Your task to perform on an android device: Open the phone app and click the voicemail tab. Image 0: 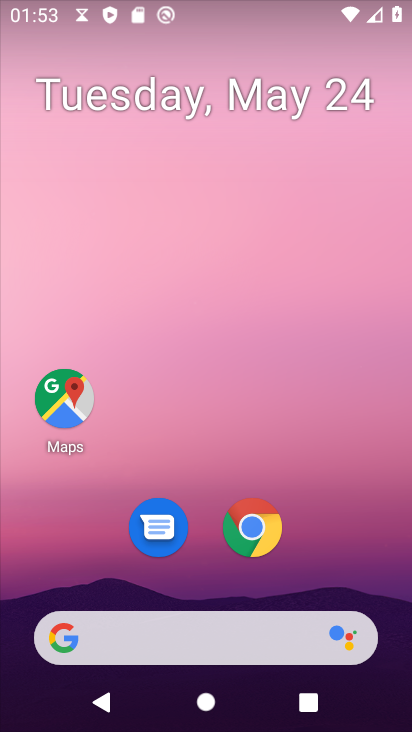
Step 0: press home button
Your task to perform on an android device: Open the phone app and click the voicemail tab. Image 1: 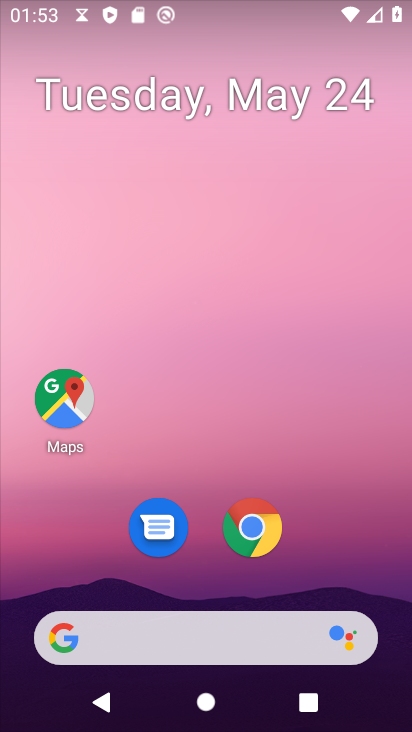
Step 1: drag from (225, 633) to (292, 132)
Your task to perform on an android device: Open the phone app and click the voicemail tab. Image 2: 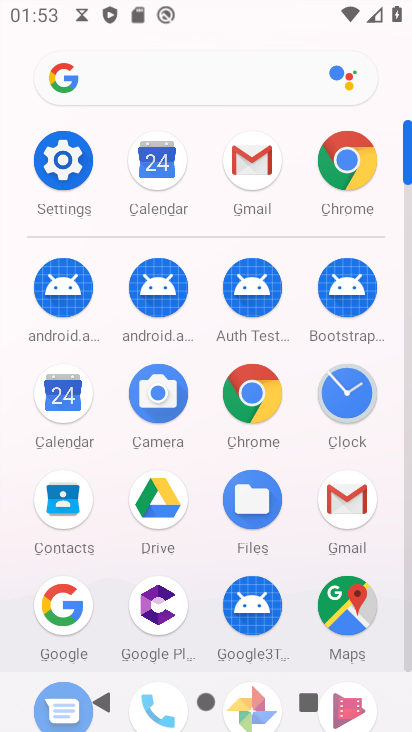
Step 2: drag from (215, 565) to (274, 350)
Your task to perform on an android device: Open the phone app and click the voicemail tab. Image 3: 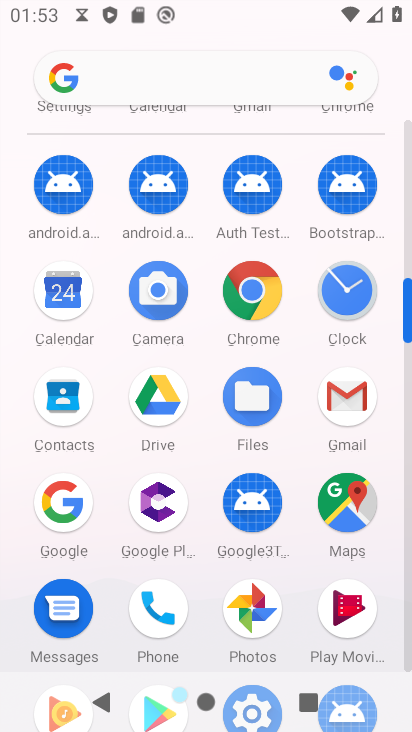
Step 3: click (165, 612)
Your task to perform on an android device: Open the phone app and click the voicemail tab. Image 4: 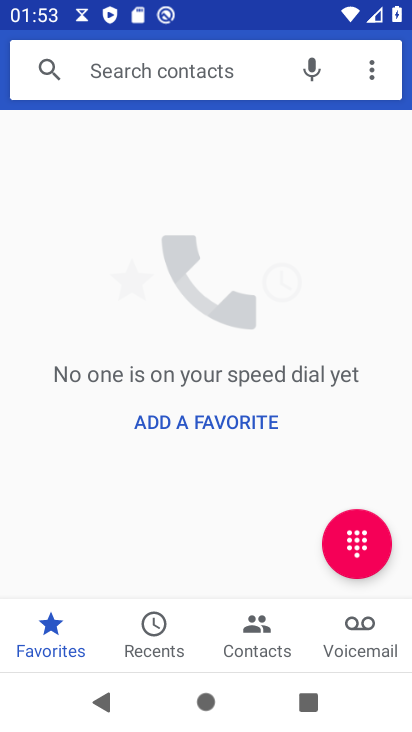
Step 4: click (355, 642)
Your task to perform on an android device: Open the phone app and click the voicemail tab. Image 5: 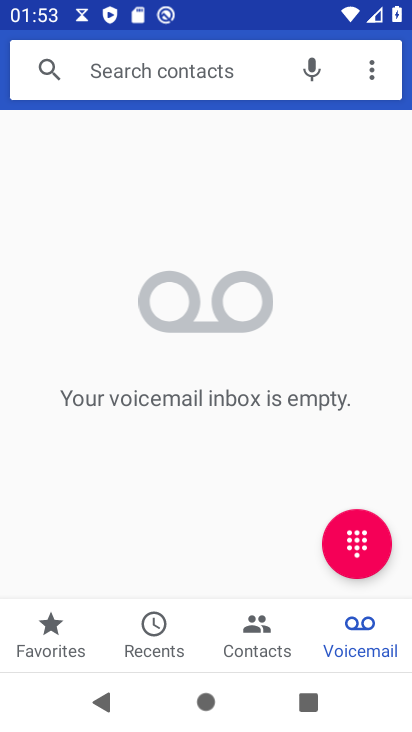
Step 5: task complete